Your task to perform on an android device: Open Chrome and go to the settings page Image 0: 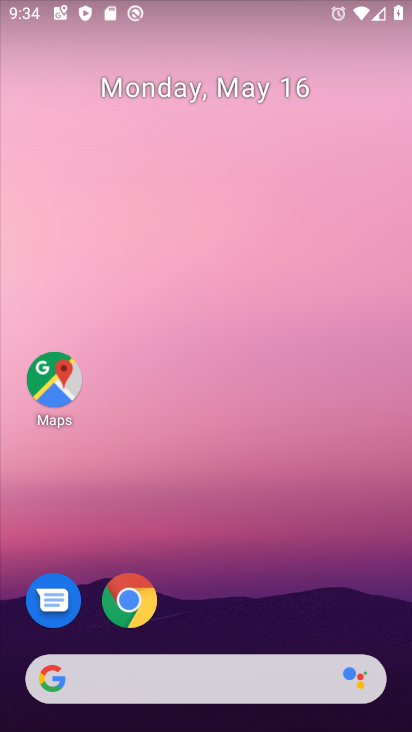
Step 0: drag from (203, 633) to (246, 197)
Your task to perform on an android device: Open Chrome and go to the settings page Image 1: 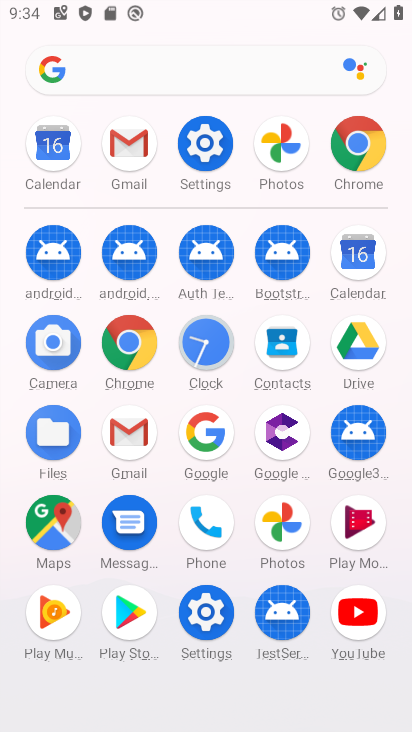
Step 1: click (369, 138)
Your task to perform on an android device: Open Chrome and go to the settings page Image 2: 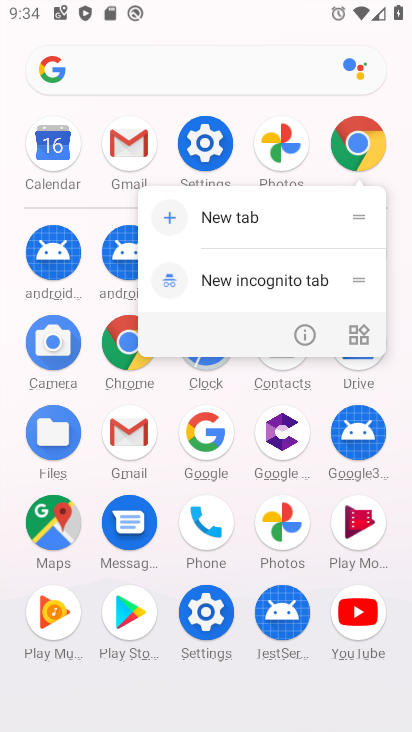
Step 2: click (298, 329)
Your task to perform on an android device: Open Chrome and go to the settings page Image 3: 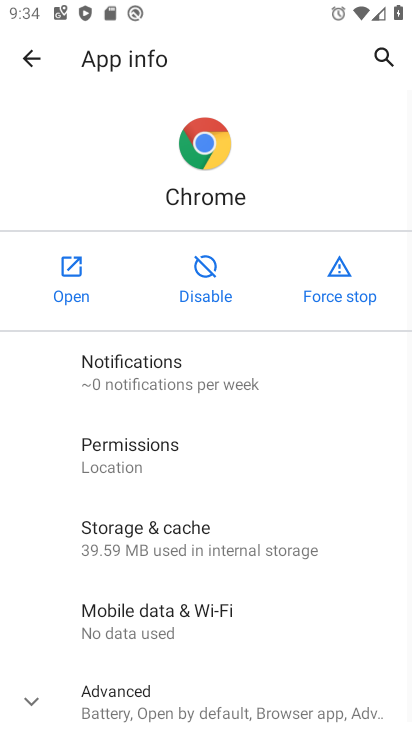
Step 3: click (85, 275)
Your task to perform on an android device: Open Chrome and go to the settings page Image 4: 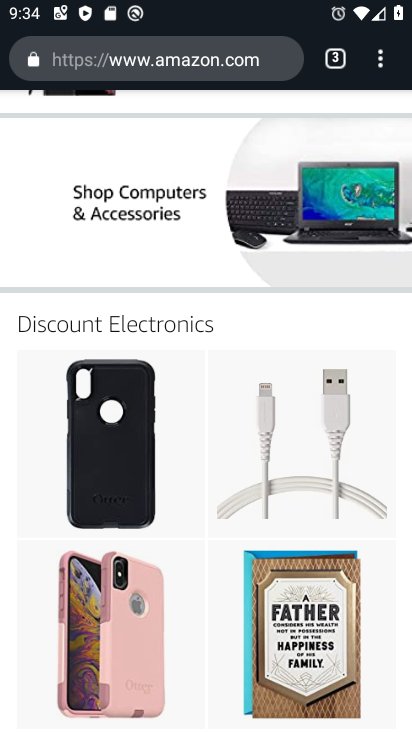
Step 4: click (377, 58)
Your task to perform on an android device: Open Chrome and go to the settings page Image 5: 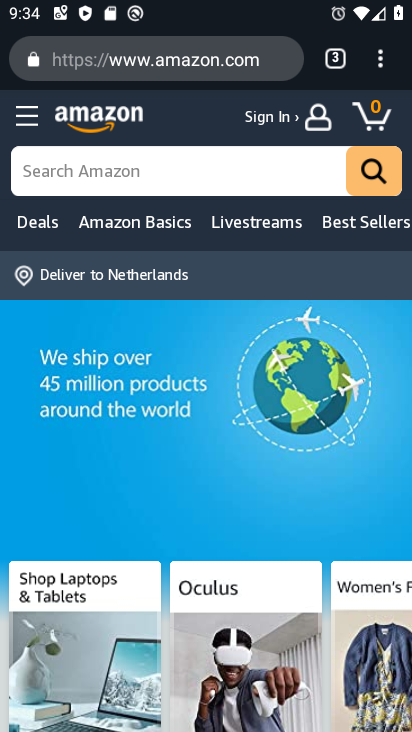
Step 5: click (384, 51)
Your task to perform on an android device: Open Chrome and go to the settings page Image 6: 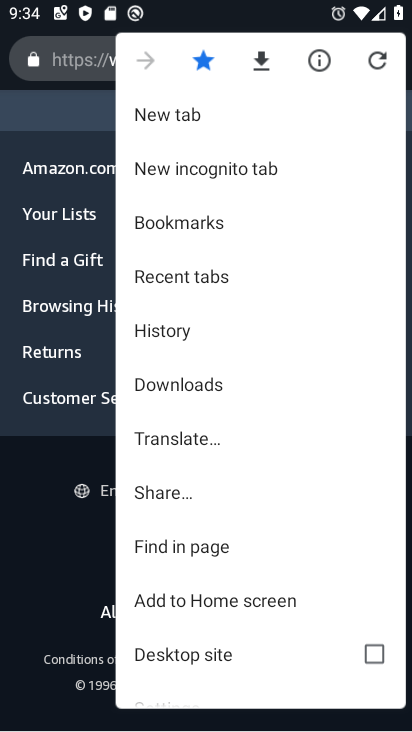
Step 6: drag from (219, 523) to (250, 66)
Your task to perform on an android device: Open Chrome and go to the settings page Image 7: 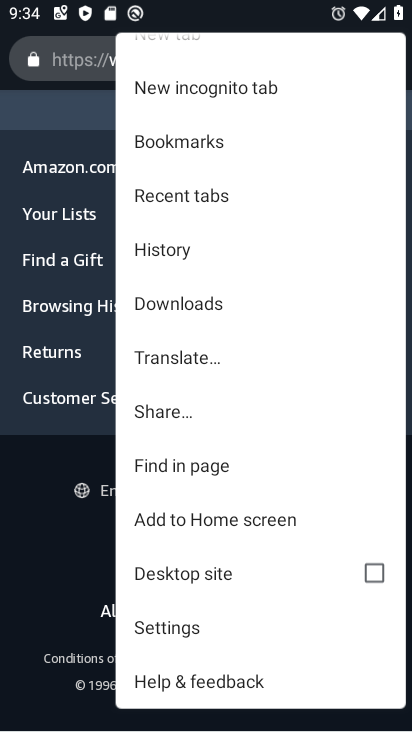
Step 7: click (208, 623)
Your task to perform on an android device: Open Chrome and go to the settings page Image 8: 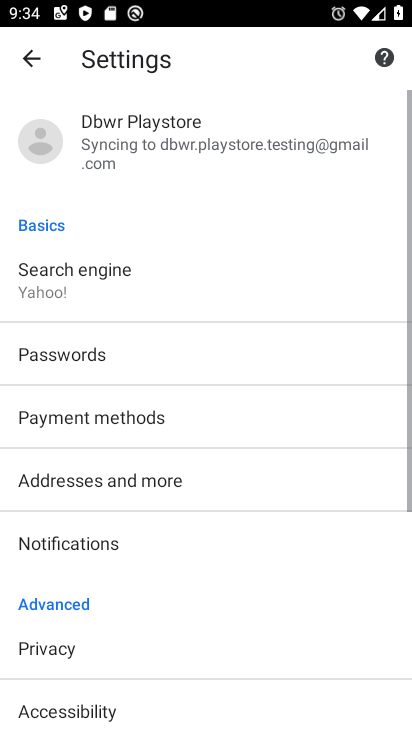
Step 8: task complete